Your task to perform on an android device: turn on javascript in the chrome app Image 0: 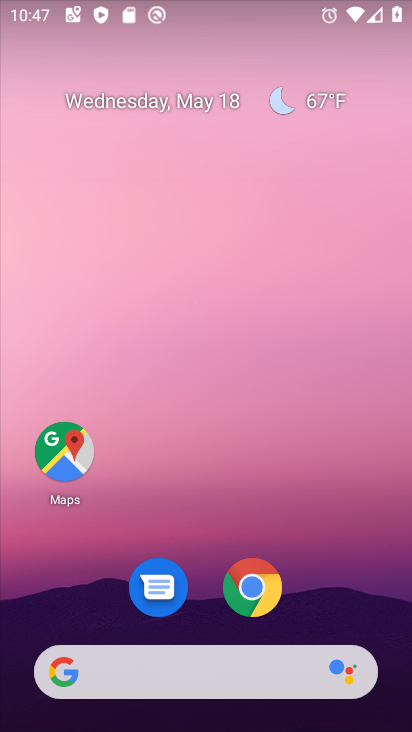
Step 0: click (243, 584)
Your task to perform on an android device: turn on javascript in the chrome app Image 1: 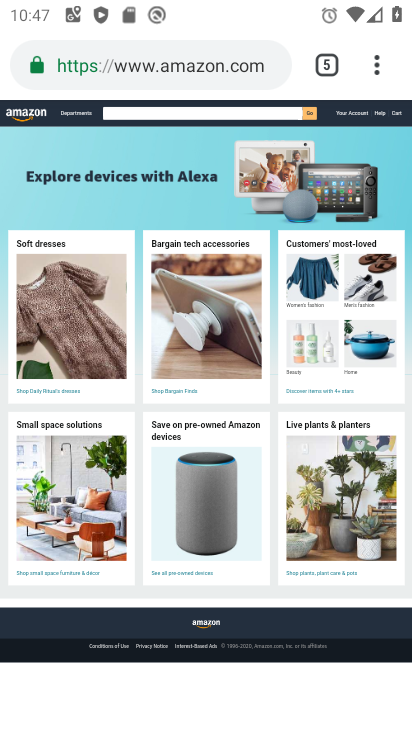
Step 1: click (368, 55)
Your task to perform on an android device: turn on javascript in the chrome app Image 2: 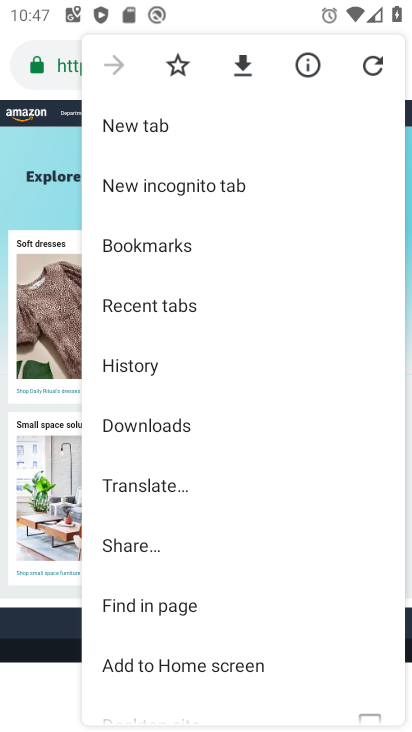
Step 2: drag from (222, 560) to (260, 119)
Your task to perform on an android device: turn on javascript in the chrome app Image 3: 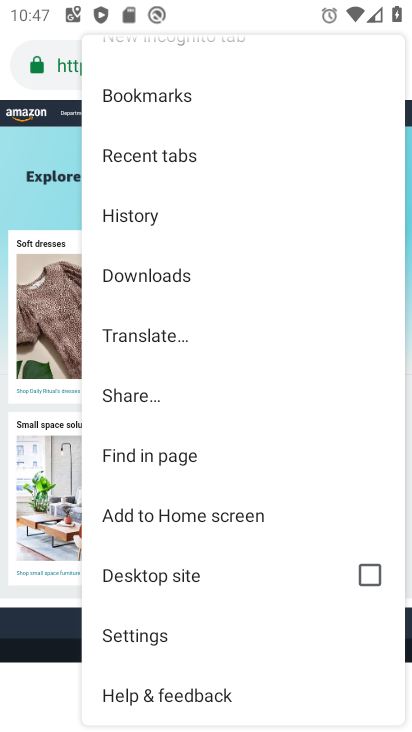
Step 3: click (140, 632)
Your task to perform on an android device: turn on javascript in the chrome app Image 4: 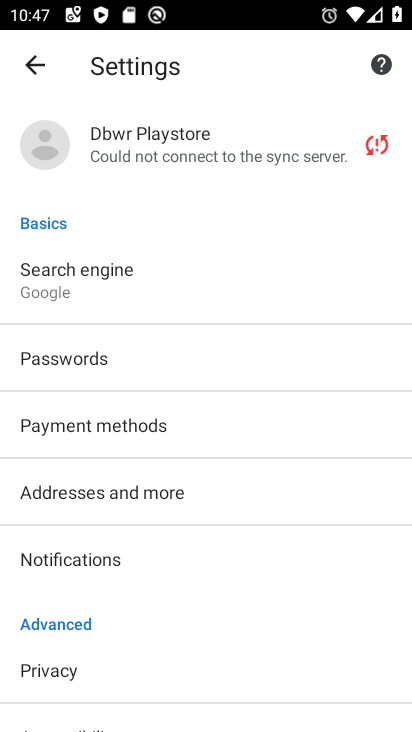
Step 4: drag from (164, 576) to (203, 135)
Your task to perform on an android device: turn on javascript in the chrome app Image 5: 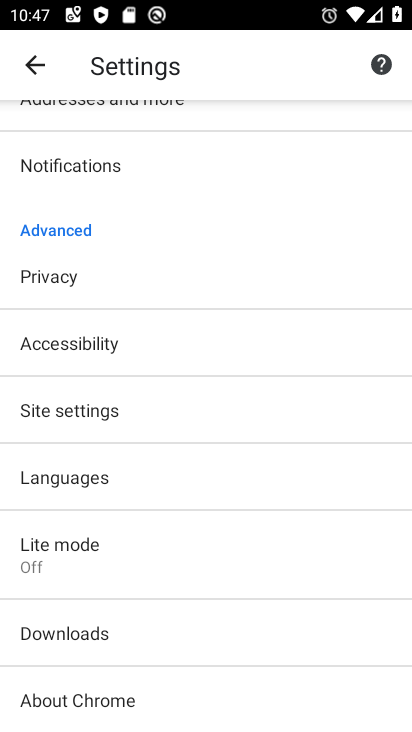
Step 5: click (144, 399)
Your task to perform on an android device: turn on javascript in the chrome app Image 6: 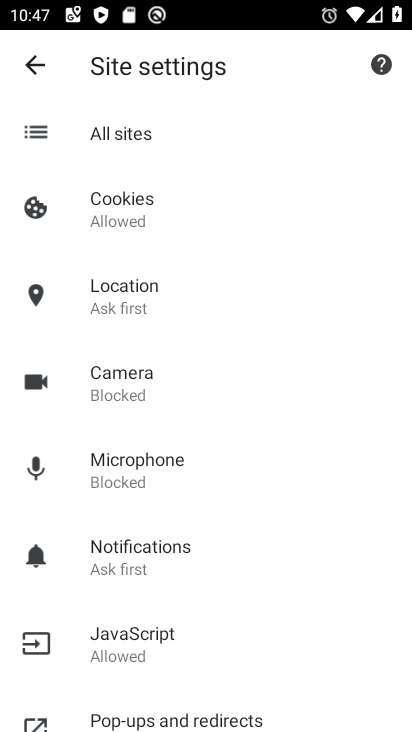
Step 6: click (137, 639)
Your task to perform on an android device: turn on javascript in the chrome app Image 7: 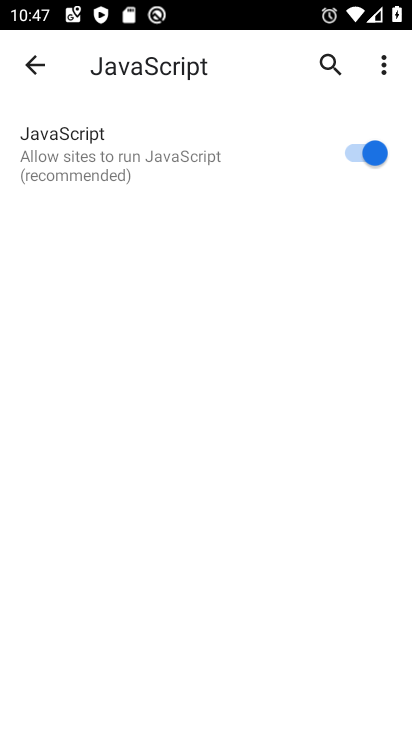
Step 7: task complete